Your task to perform on an android device: Go to battery settings Image 0: 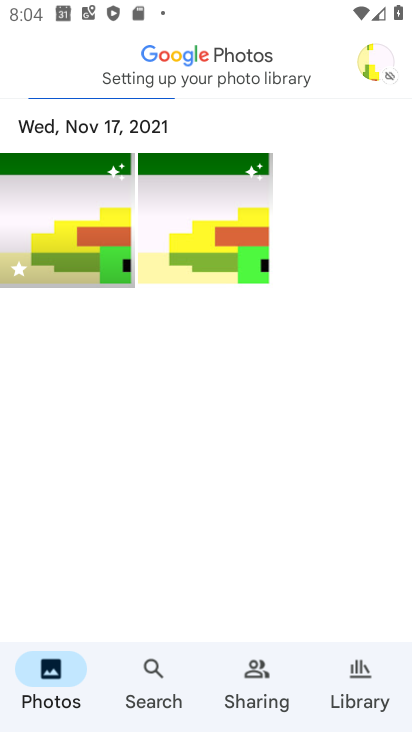
Step 0: press home button
Your task to perform on an android device: Go to battery settings Image 1: 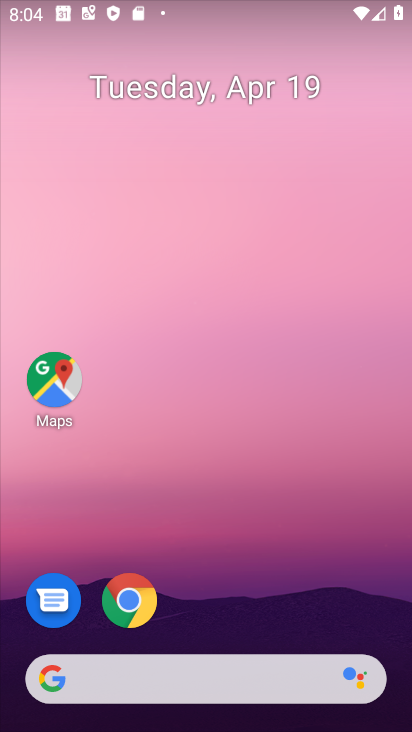
Step 1: drag from (277, 612) to (231, 82)
Your task to perform on an android device: Go to battery settings Image 2: 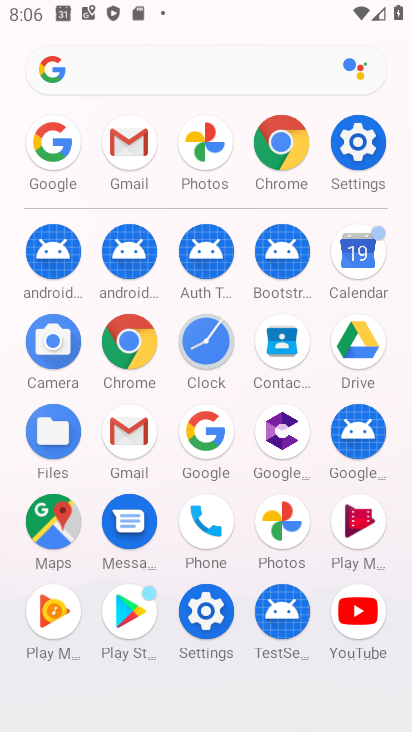
Step 2: click (357, 161)
Your task to perform on an android device: Go to battery settings Image 3: 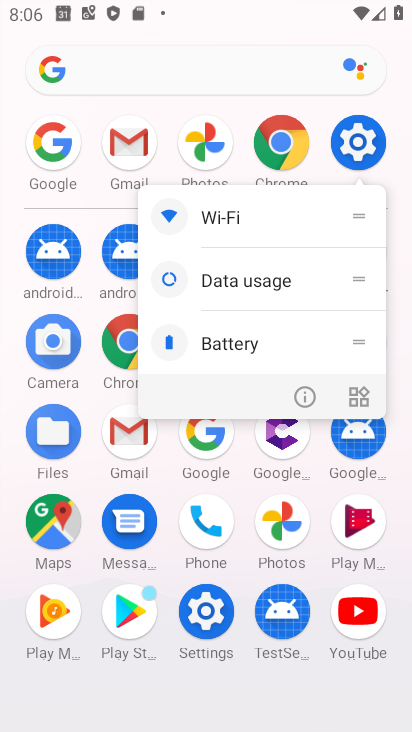
Step 3: click (359, 151)
Your task to perform on an android device: Go to battery settings Image 4: 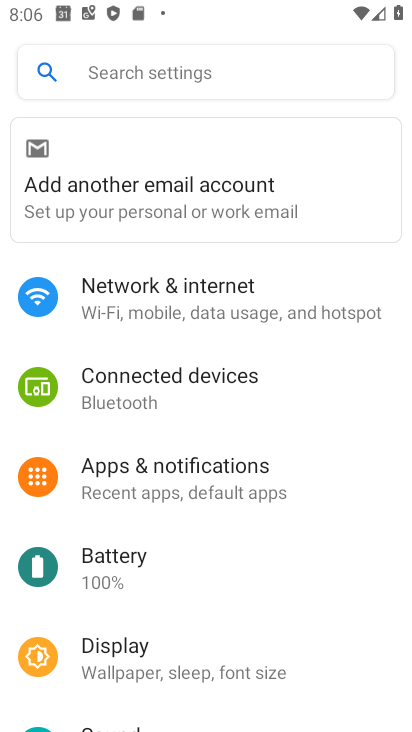
Step 4: drag from (148, 580) to (155, 446)
Your task to perform on an android device: Go to battery settings Image 5: 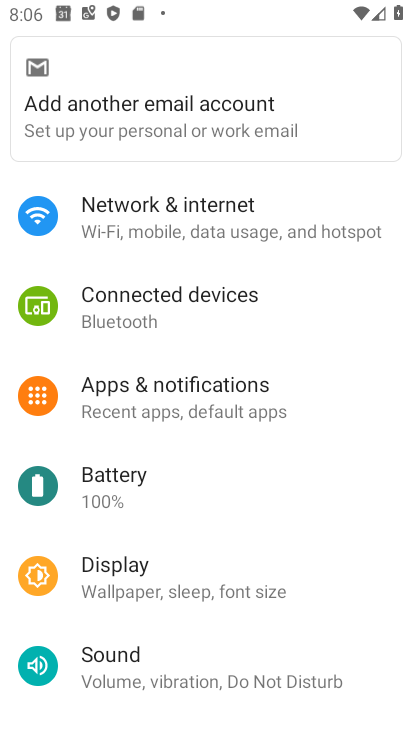
Step 5: click (148, 485)
Your task to perform on an android device: Go to battery settings Image 6: 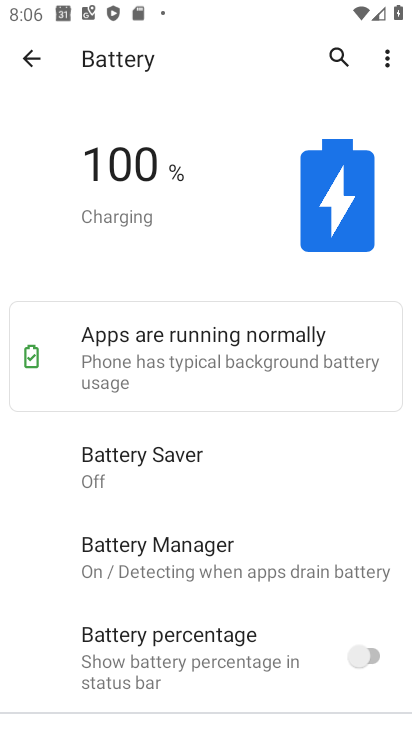
Step 6: task complete